Your task to perform on an android device: change text size in settings app Image 0: 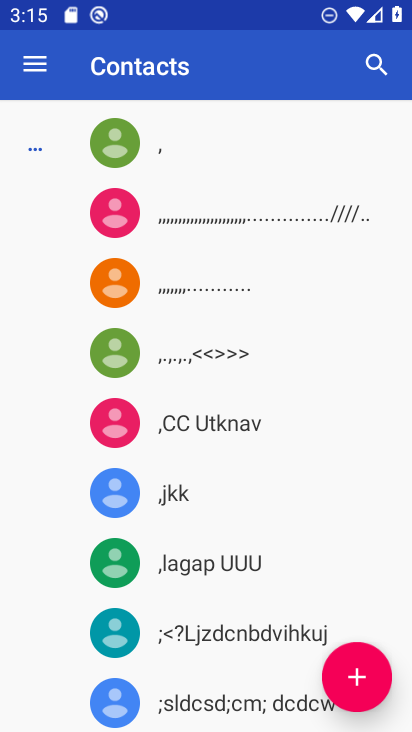
Step 0: press home button
Your task to perform on an android device: change text size in settings app Image 1: 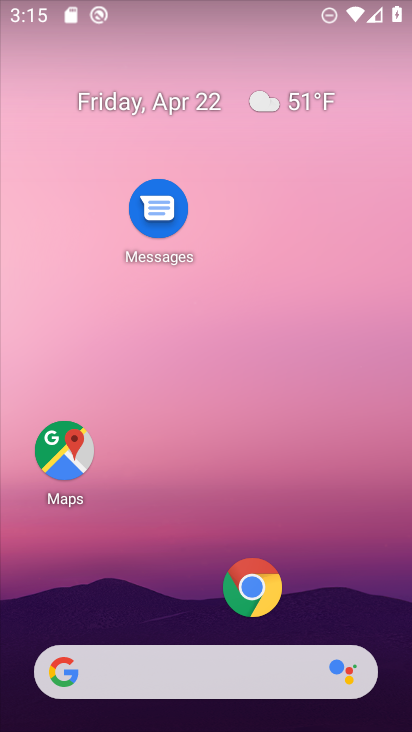
Step 1: drag from (193, 592) to (242, 139)
Your task to perform on an android device: change text size in settings app Image 2: 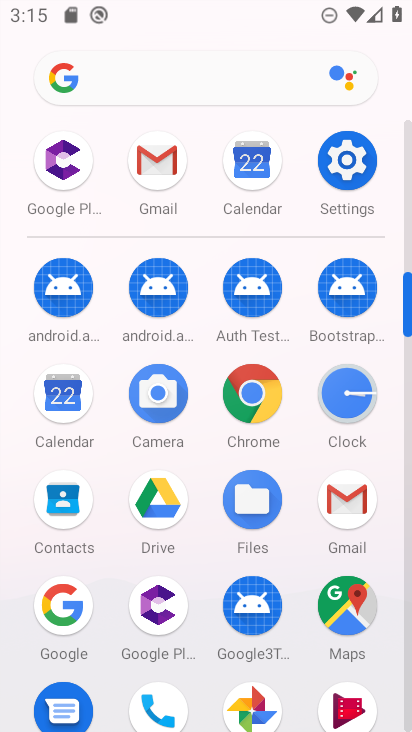
Step 2: click (346, 181)
Your task to perform on an android device: change text size in settings app Image 3: 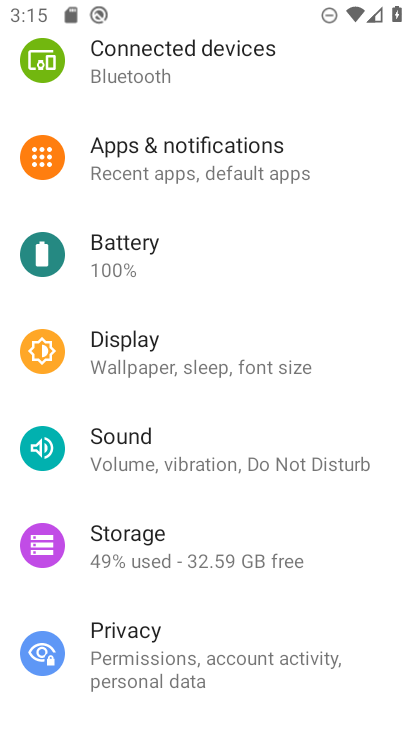
Step 3: click (163, 363)
Your task to perform on an android device: change text size in settings app Image 4: 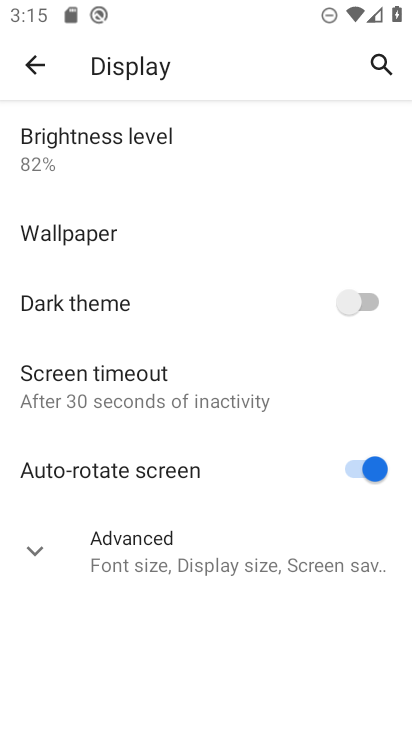
Step 4: click (174, 542)
Your task to perform on an android device: change text size in settings app Image 5: 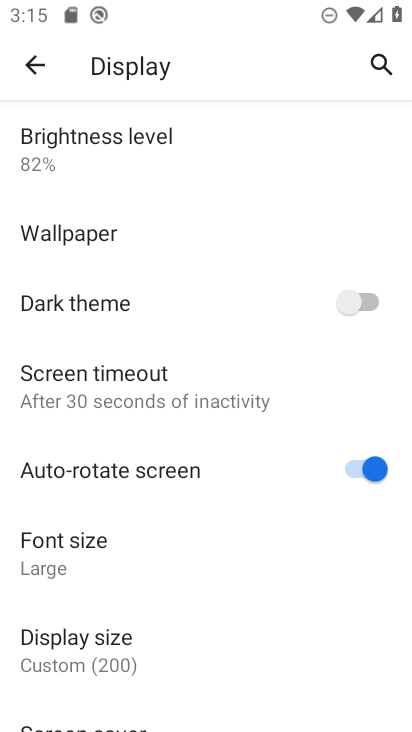
Step 5: click (109, 557)
Your task to perform on an android device: change text size in settings app Image 6: 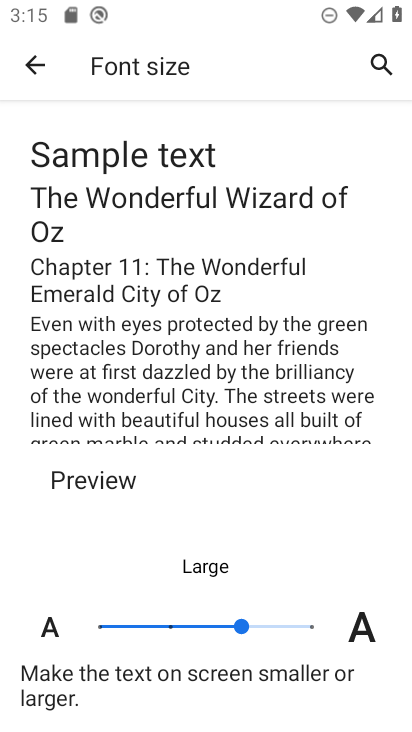
Step 6: click (99, 626)
Your task to perform on an android device: change text size in settings app Image 7: 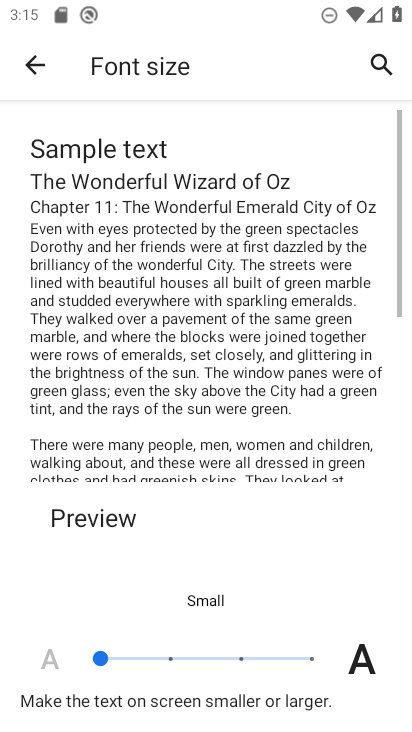
Step 7: task complete